Your task to perform on an android device: Open sound settings Image 0: 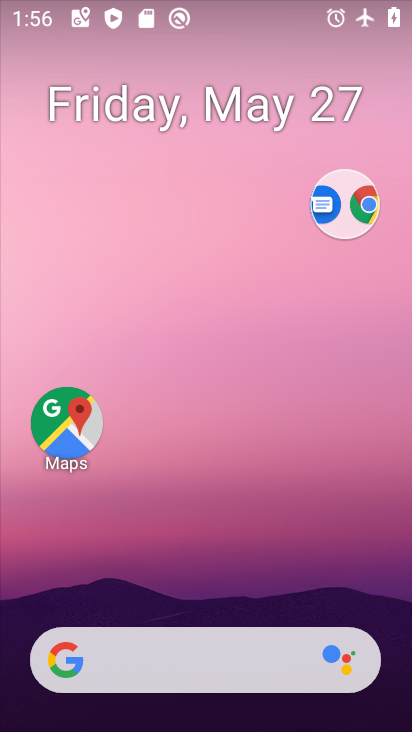
Step 0: drag from (146, 594) to (165, 217)
Your task to perform on an android device: Open sound settings Image 1: 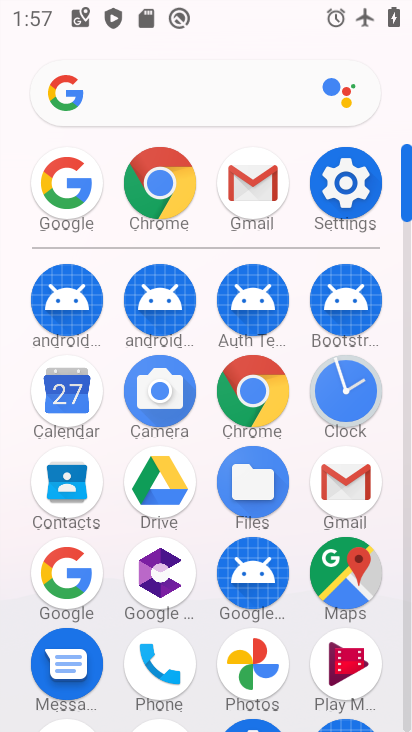
Step 1: click (327, 194)
Your task to perform on an android device: Open sound settings Image 2: 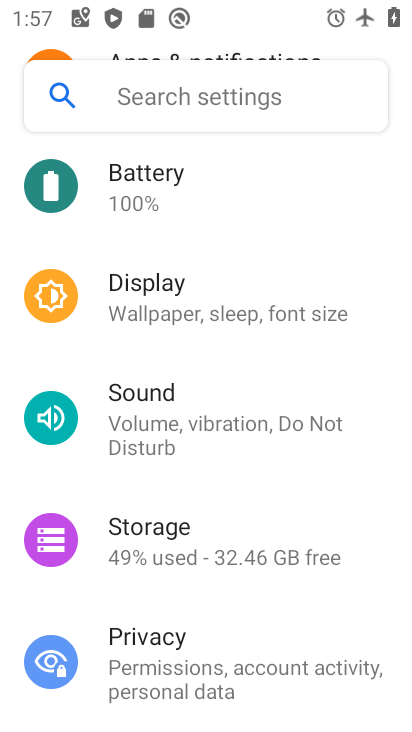
Step 2: click (193, 414)
Your task to perform on an android device: Open sound settings Image 3: 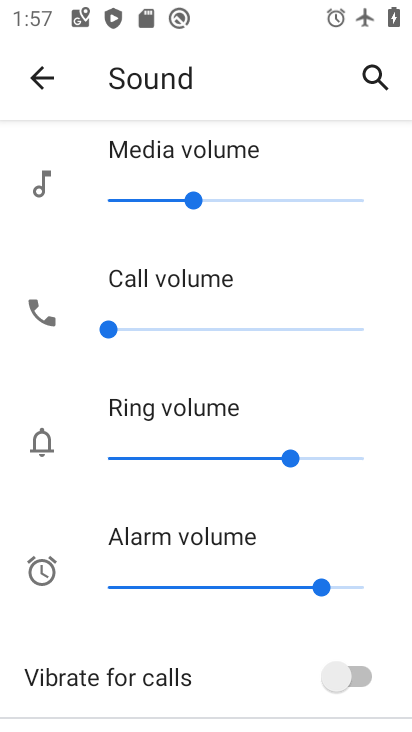
Step 3: task complete